Your task to perform on an android device: Toggle the flashlight Image 0: 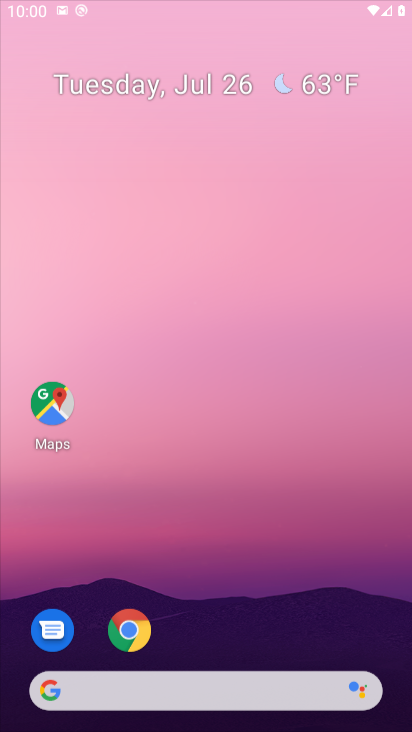
Step 0: press home button
Your task to perform on an android device: Toggle the flashlight Image 1: 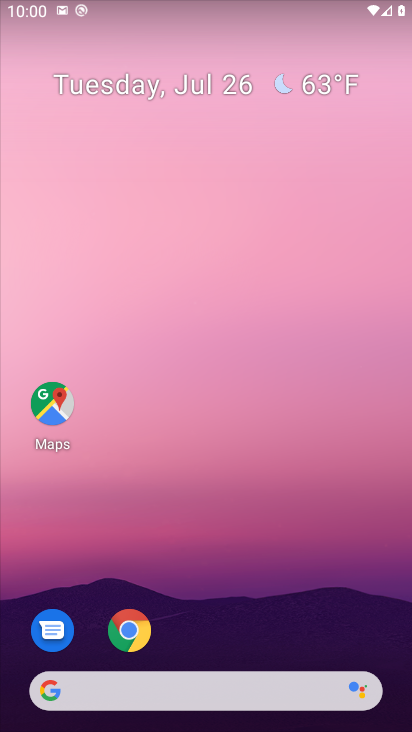
Step 1: drag from (223, 633) to (227, 337)
Your task to perform on an android device: Toggle the flashlight Image 2: 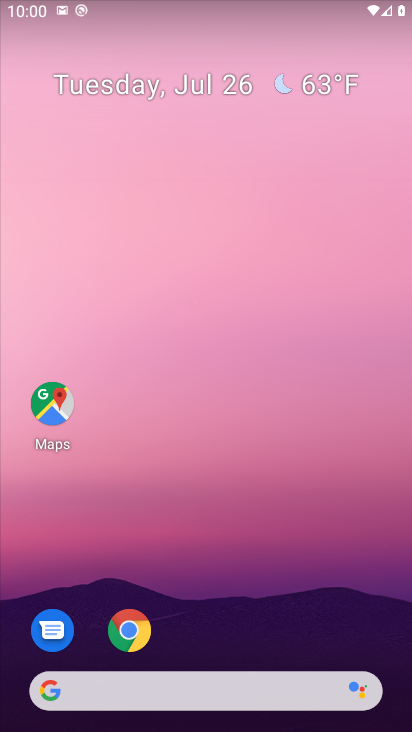
Step 2: drag from (206, 647) to (205, 145)
Your task to perform on an android device: Toggle the flashlight Image 3: 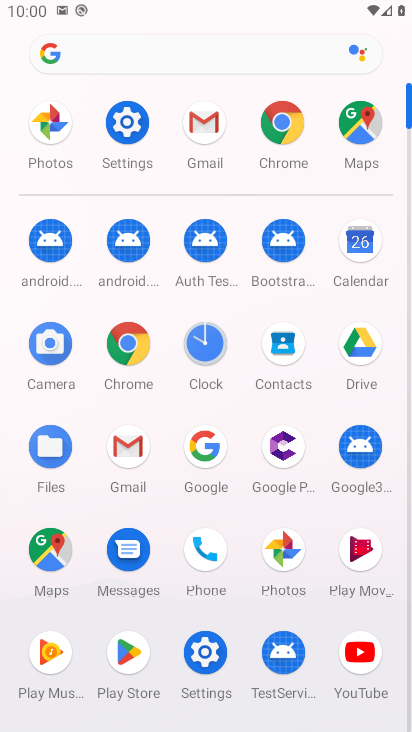
Step 3: click (128, 113)
Your task to perform on an android device: Toggle the flashlight Image 4: 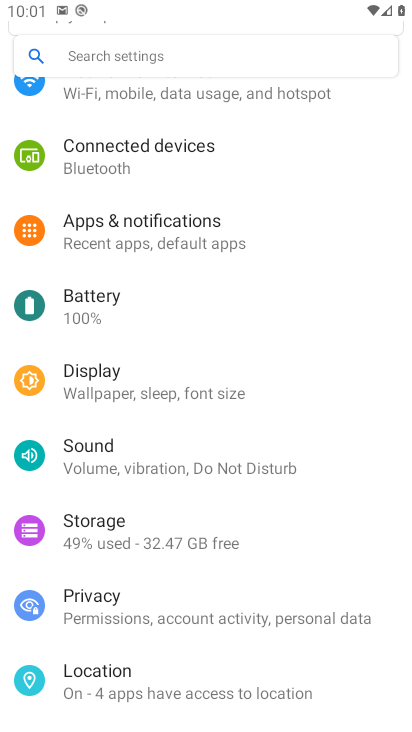
Step 4: click (105, 54)
Your task to perform on an android device: Toggle the flashlight Image 5: 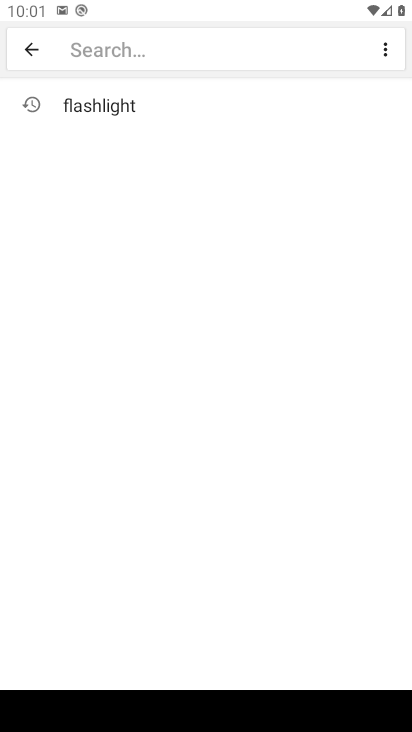
Step 5: click (114, 100)
Your task to perform on an android device: Toggle the flashlight Image 6: 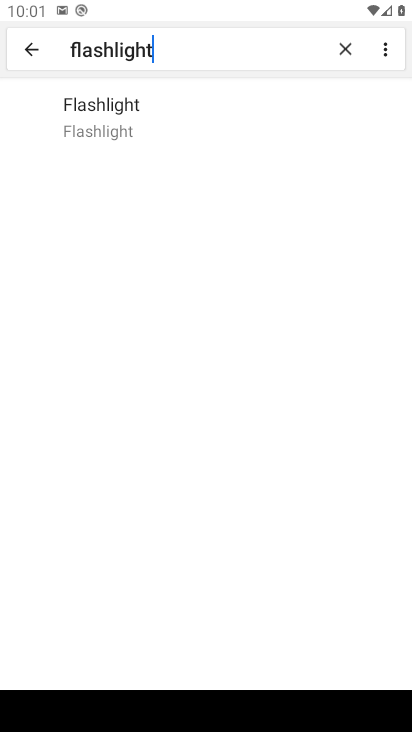
Step 6: click (103, 115)
Your task to perform on an android device: Toggle the flashlight Image 7: 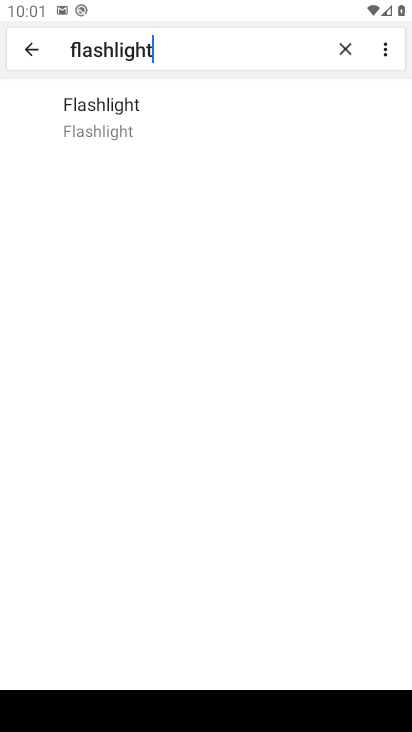
Step 7: task complete